Your task to perform on an android device: What's the weather going to be tomorrow? Image 0: 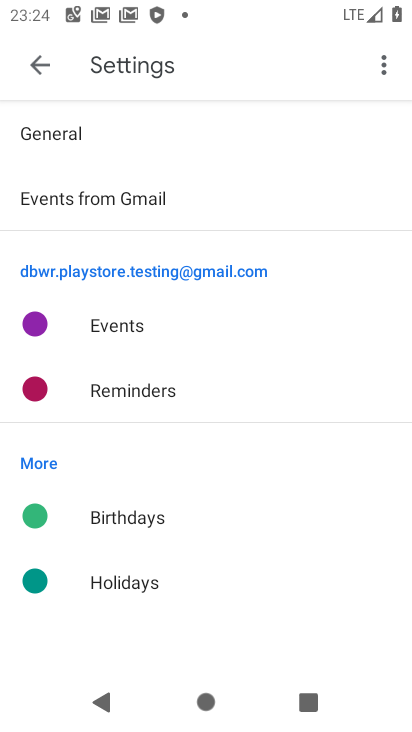
Step 0: press home button
Your task to perform on an android device: What's the weather going to be tomorrow? Image 1: 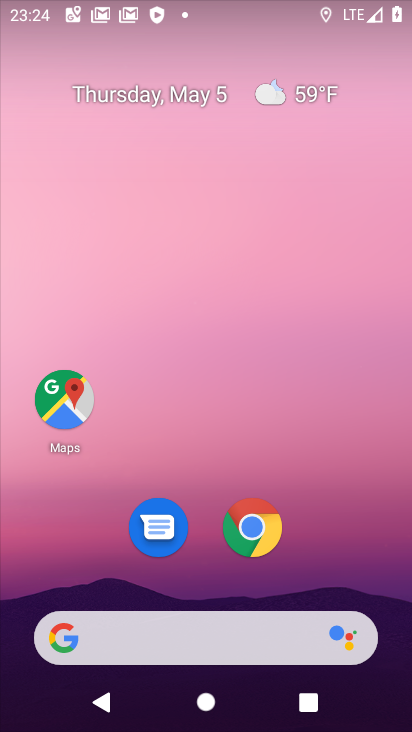
Step 1: click (315, 88)
Your task to perform on an android device: What's the weather going to be tomorrow? Image 2: 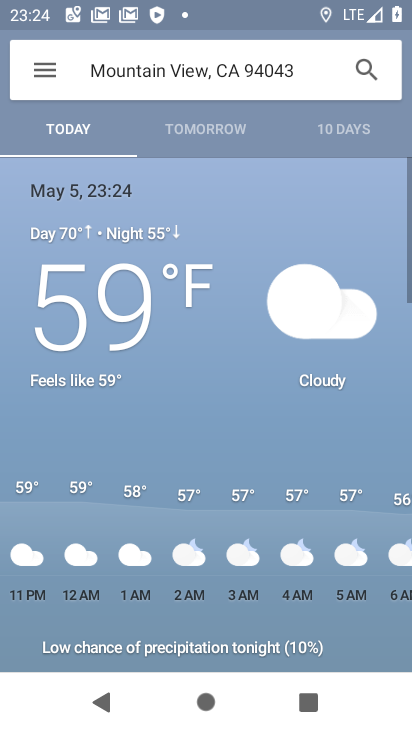
Step 2: click (223, 135)
Your task to perform on an android device: What's the weather going to be tomorrow? Image 3: 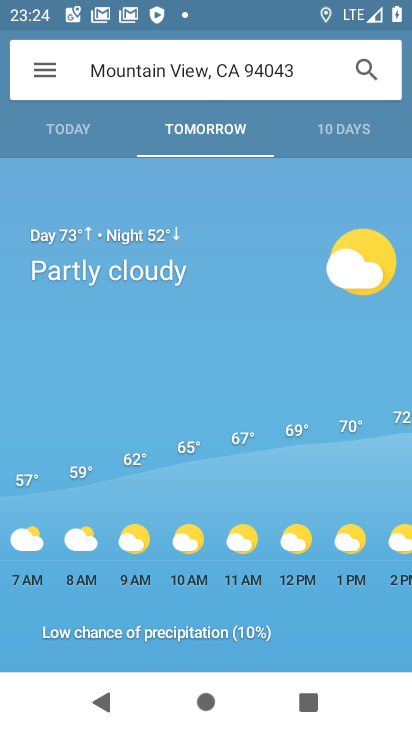
Step 3: task complete